Your task to perform on an android device: What's the weather? Image 0: 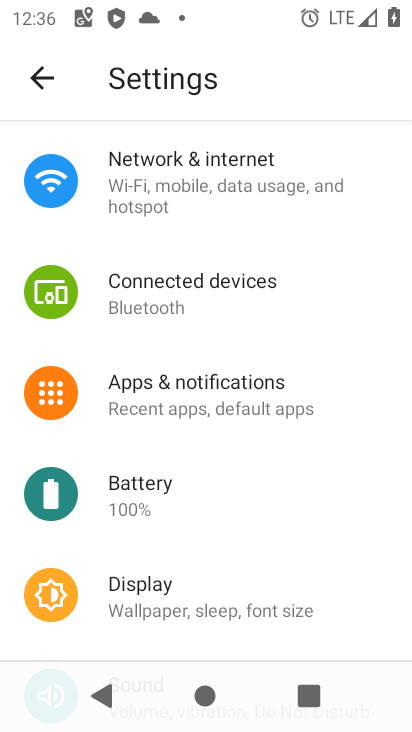
Step 0: press home button
Your task to perform on an android device: What's the weather? Image 1: 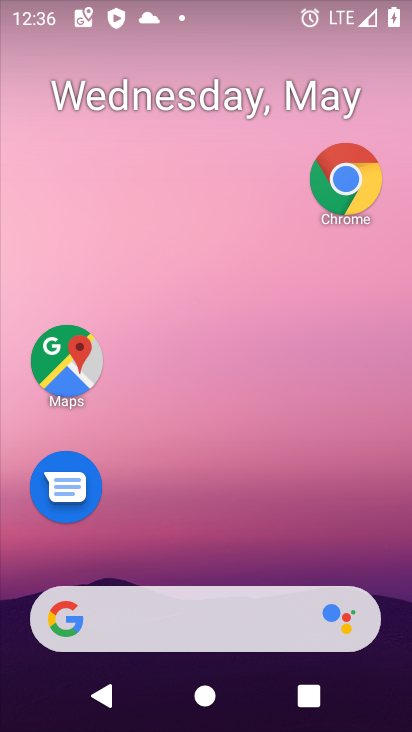
Step 1: drag from (208, 545) to (274, 433)
Your task to perform on an android device: What's the weather? Image 2: 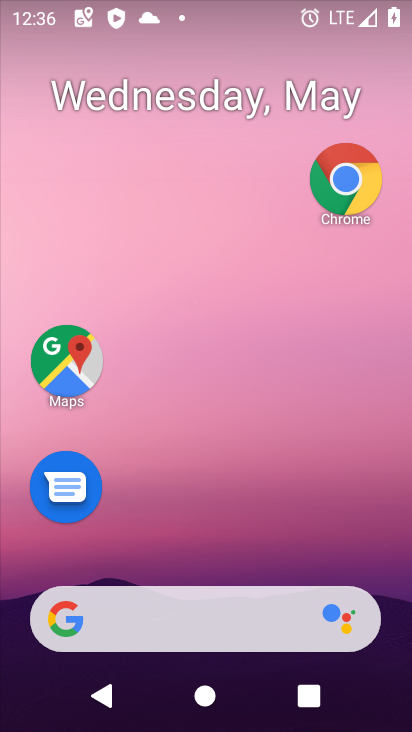
Step 2: click (192, 624)
Your task to perform on an android device: What's the weather? Image 3: 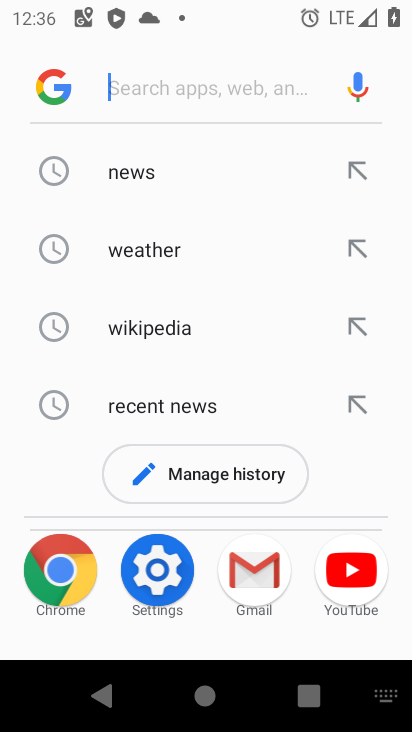
Step 3: click (150, 236)
Your task to perform on an android device: What's the weather? Image 4: 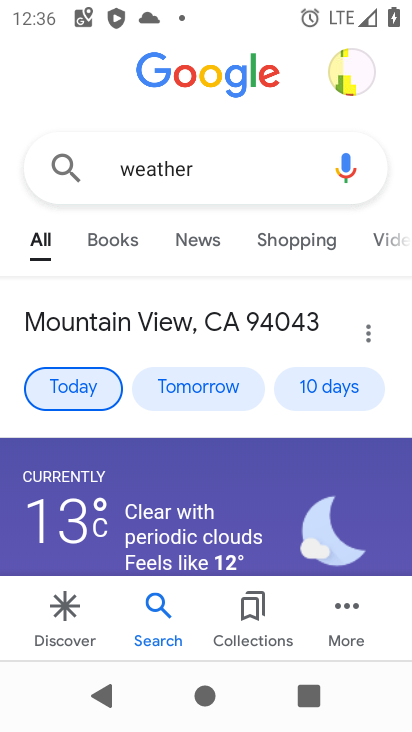
Step 4: task complete